Your task to perform on an android device: check google app version Image 0: 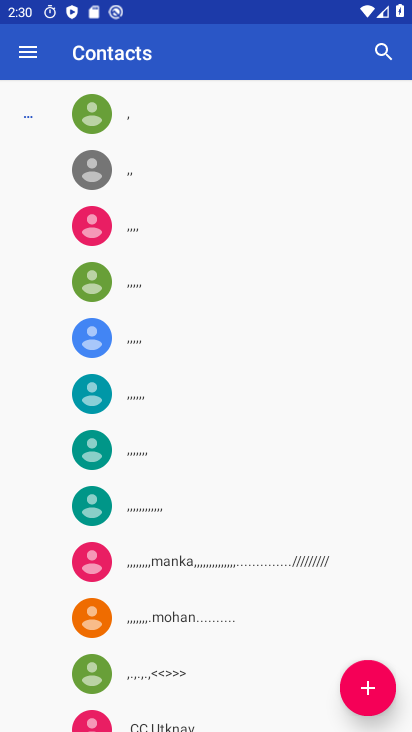
Step 0: press home button
Your task to perform on an android device: check google app version Image 1: 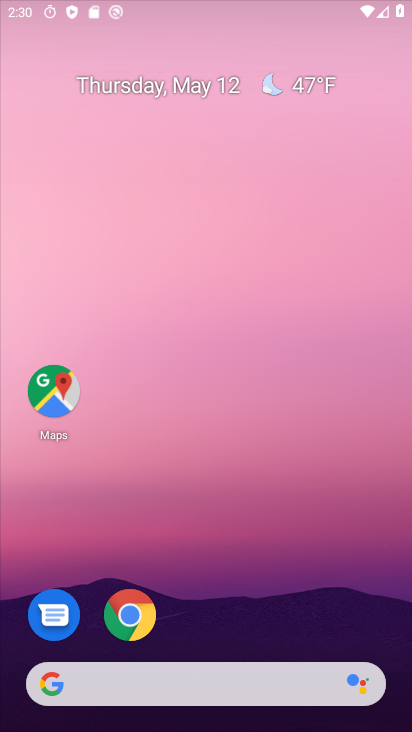
Step 1: drag from (210, 599) to (231, 113)
Your task to perform on an android device: check google app version Image 2: 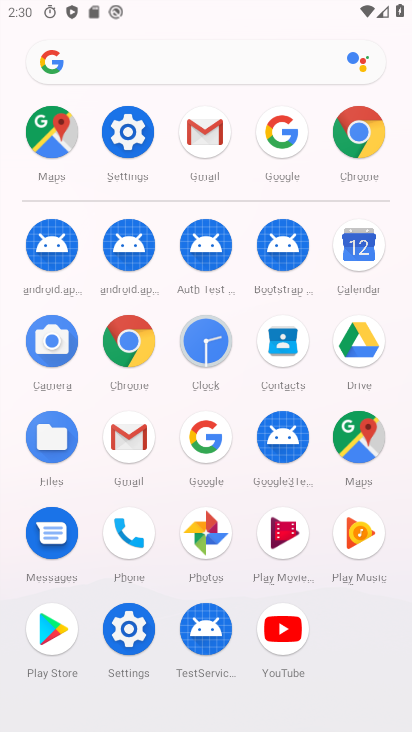
Step 2: click (211, 437)
Your task to perform on an android device: check google app version Image 3: 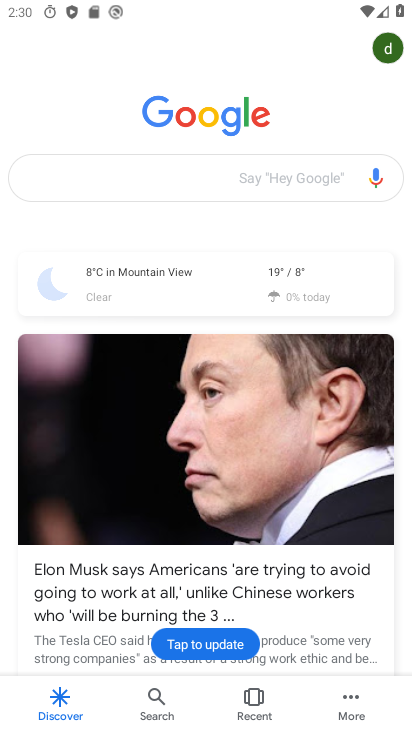
Step 3: click (348, 706)
Your task to perform on an android device: check google app version Image 4: 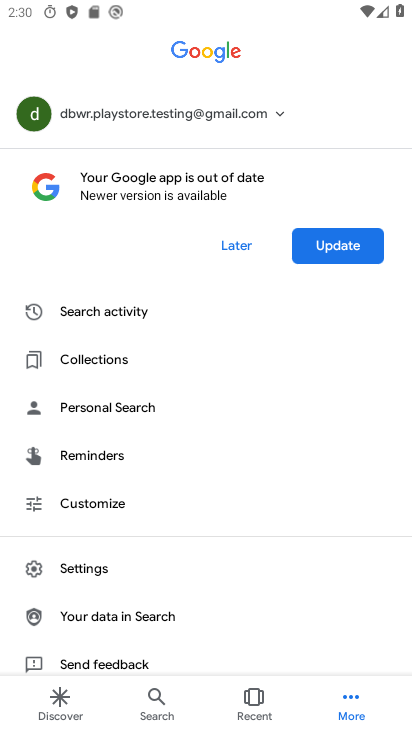
Step 4: drag from (202, 639) to (208, 333)
Your task to perform on an android device: check google app version Image 5: 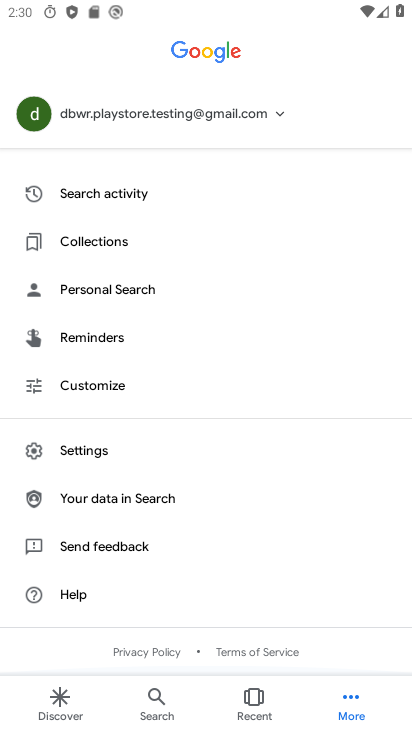
Step 5: click (123, 452)
Your task to perform on an android device: check google app version Image 6: 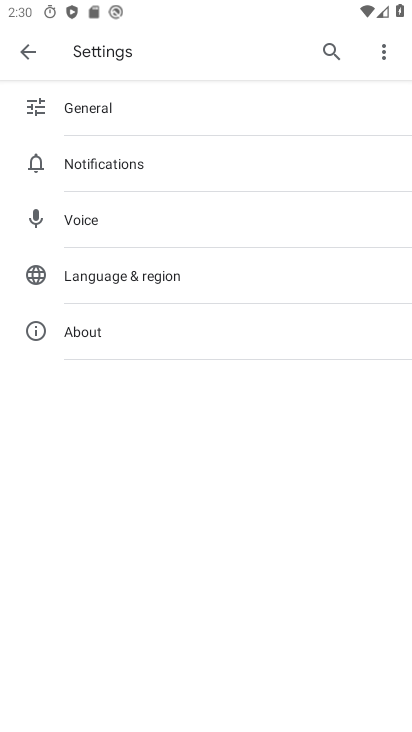
Step 6: click (91, 342)
Your task to perform on an android device: check google app version Image 7: 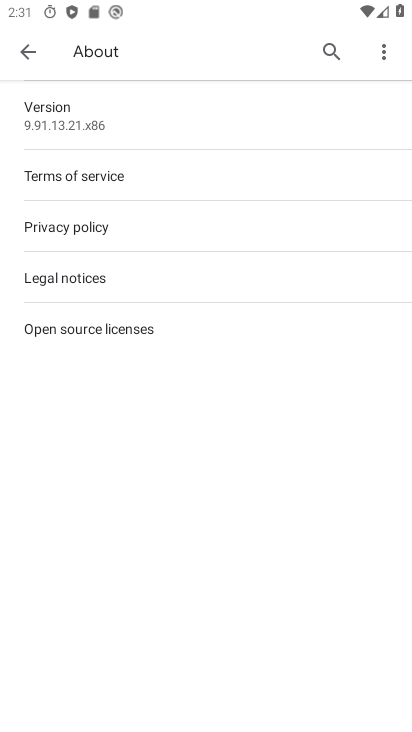
Step 7: task complete